Your task to perform on an android device: change text size in settings app Image 0: 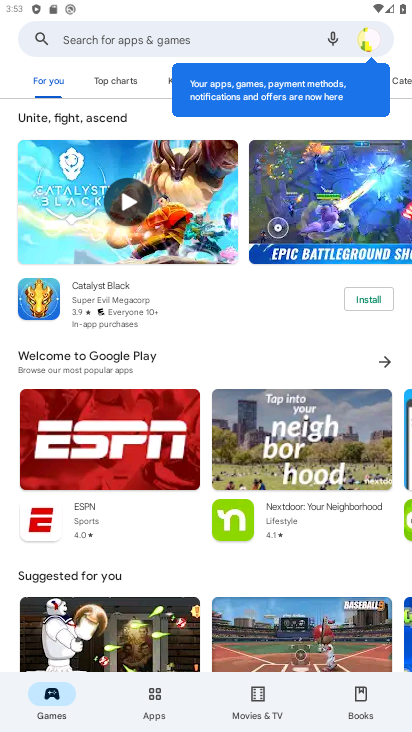
Step 0: press home button
Your task to perform on an android device: change text size in settings app Image 1: 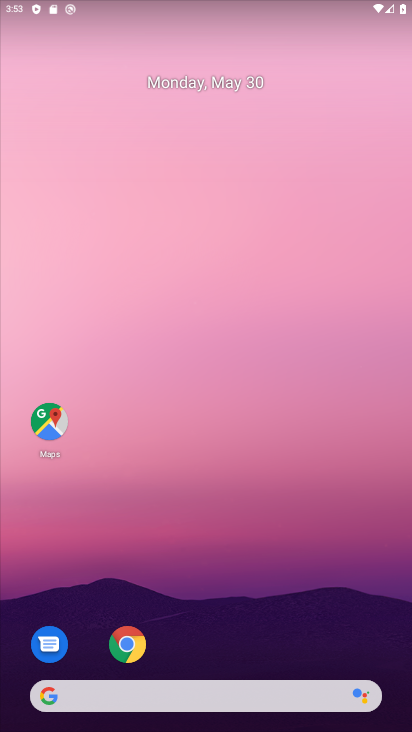
Step 1: drag from (172, 628) to (255, 10)
Your task to perform on an android device: change text size in settings app Image 2: 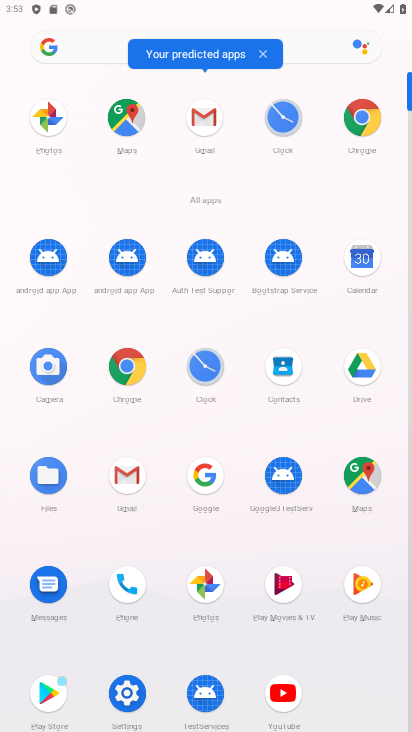
Step 2: click (129, 689)
Your task to perform on an android device: change text size in settings app Image 3: 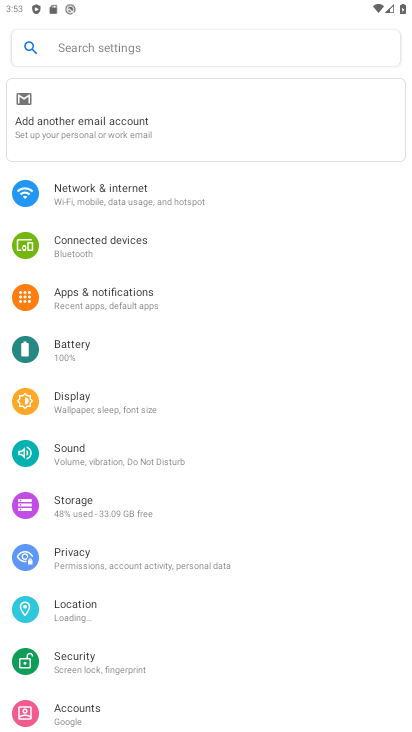
Step 3: click (151, 395)
Your task to perform on an android device: change text size in settings app Image 4: 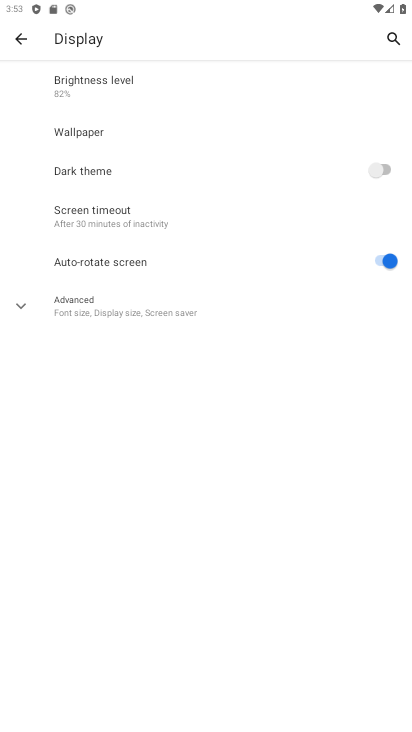
Step 4: click (117, 311)
Your task to perform on an android device: change text size in settings app Image 5: 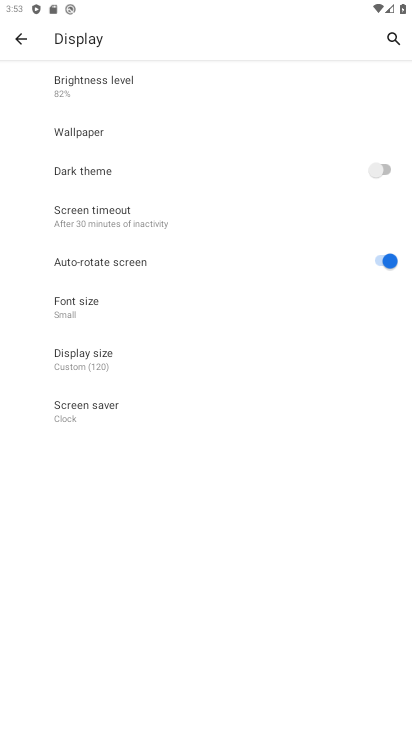
Step 5: click (103, 313)
Your task to perform on an android device: change text size in settings app Image 6: 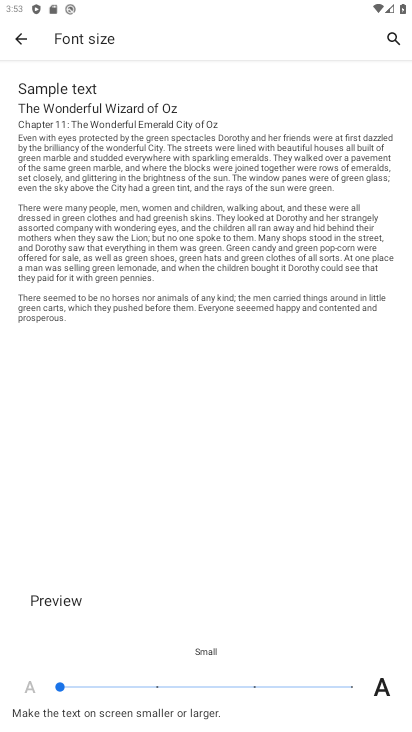
Step 6: click (149, 684)
Your task to perform on an android device: change text size in settings app Image 7: 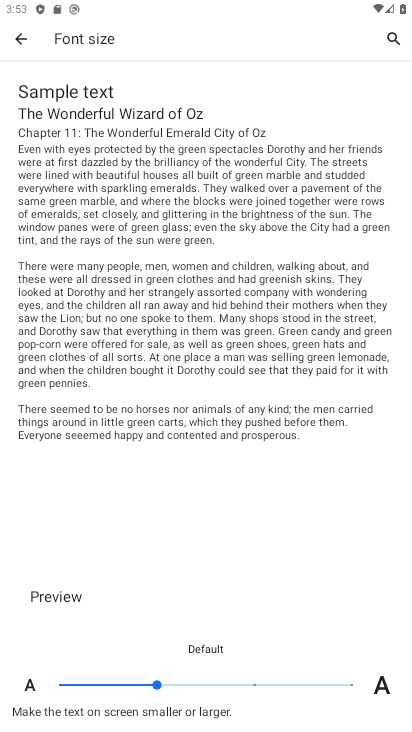
Step 7: click (63, 687)
Your task to perform on an android device: change text size in settings app Image 8: 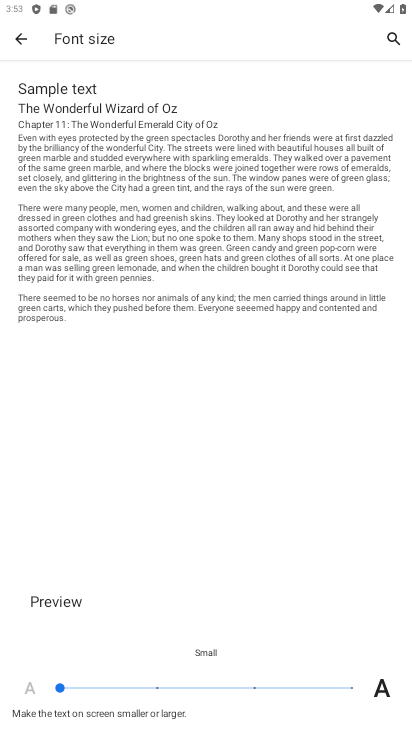
Step 8: task complete